Your task to perform on an android device: empty trash in google photos Image 0: 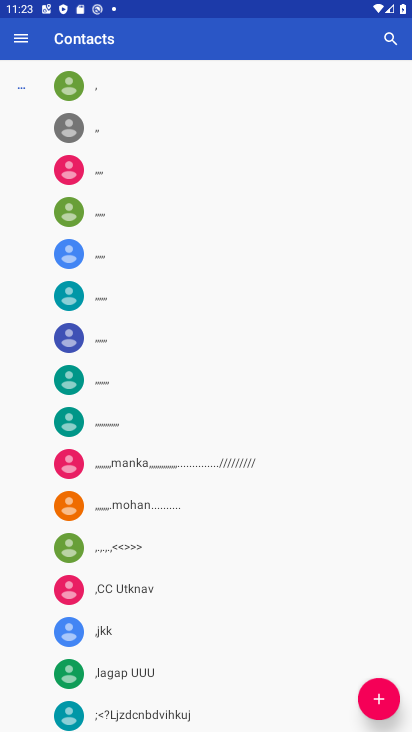
Step 0: press home button
Your task to perform on an android device: empty trash in google photos Image 1: 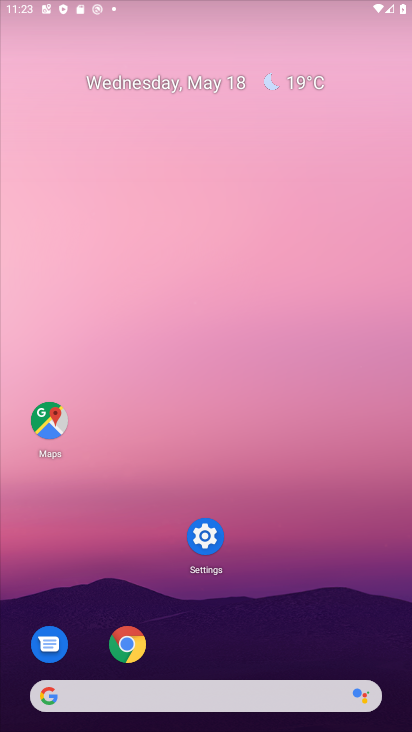
Step 1: drag from (370, 633) to (312, 231)
Your task to perform on an android device: empty trash in google photos Image 2: 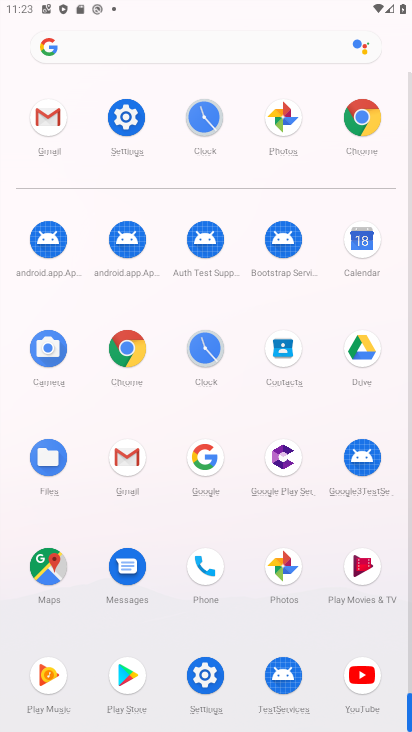
Step 2: click (277, 567)
Your task to perform on an android device: empty trash in google photos Image 3: 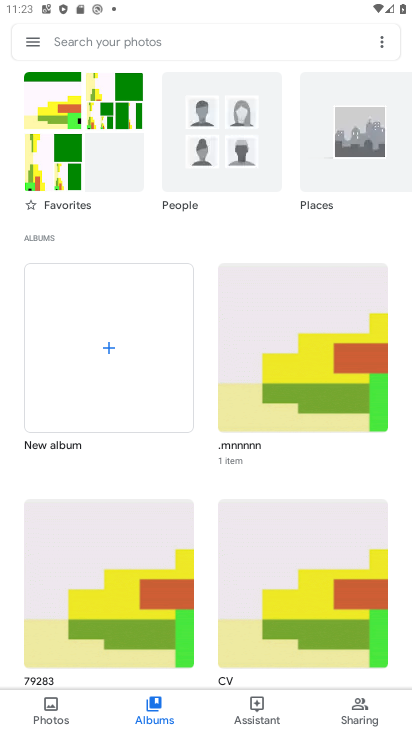
Step 3: click (35, 45)
Your task to perform on an android device: empty trash in google photos Image 4: 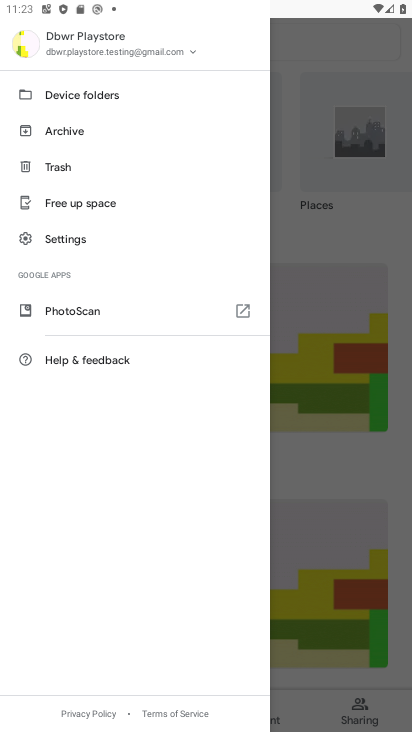
Step 4: click (60, 171)
Your task to perform on an android device: empty trash in google photos Image 5: 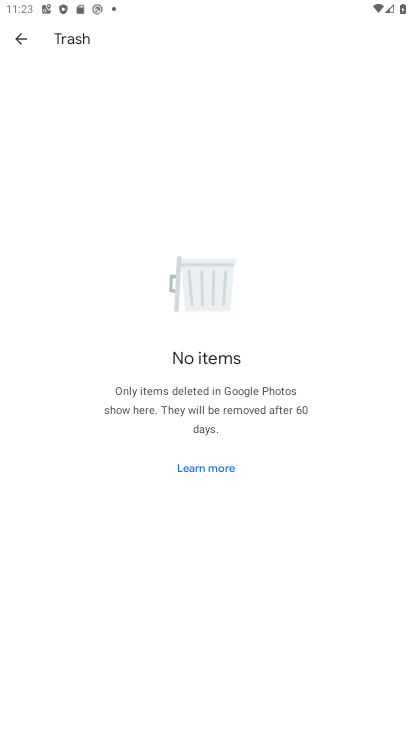
Step 5: task complete